Your task to perform on an android device: Go to accessibility settings Image 0: 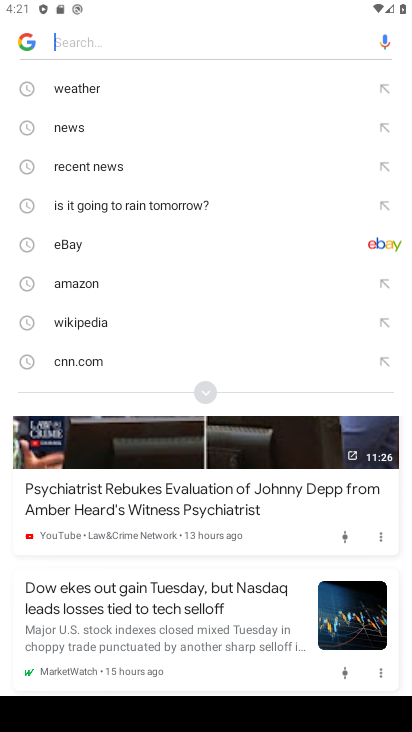
Step 0: press home button
Your task to perform on an android device: Go to accessibility settings Image 1: 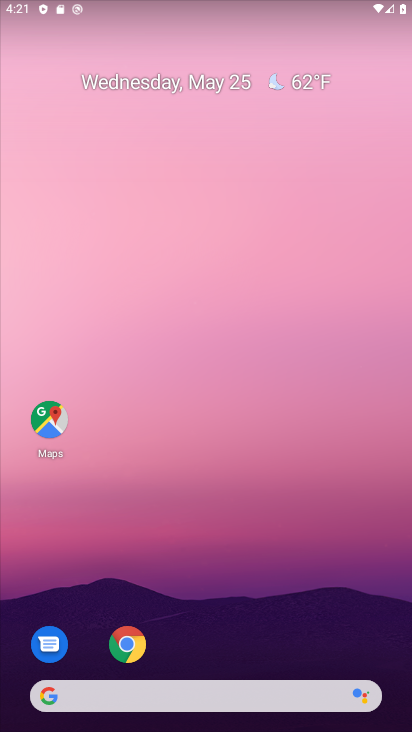
Step 1: drag from (176, 629) to (194, 516)
Your task to perform on an android device: Go to accessibility settings Image 2: 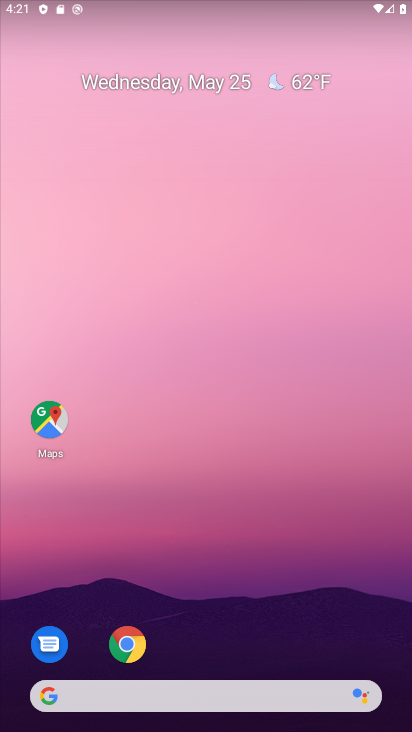
Step 2: drag from (219, 646) to (200, 302)
Your task to perform on an android device: Go to accessibility settings Image 3: 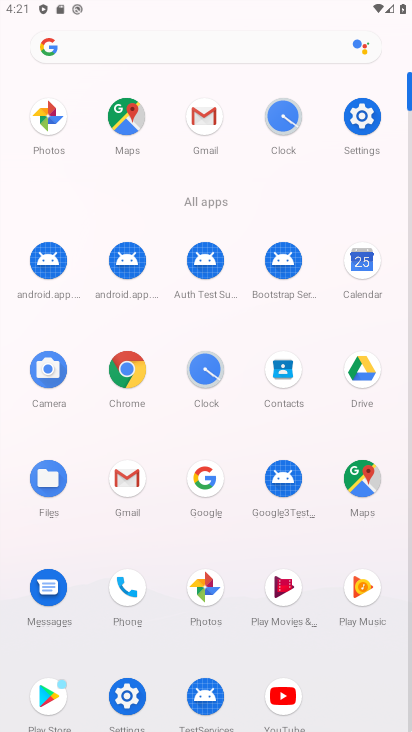
Step 3: click (367, 120)
Your task to perform on an android device: Go to accessibility settings Image 4: 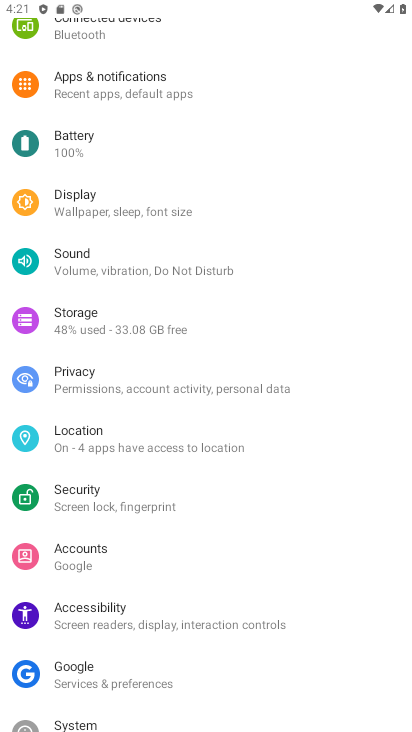
Step 4: click (122, 612)
Your task to perform on an android device: Go to accessibility settings Image 5: 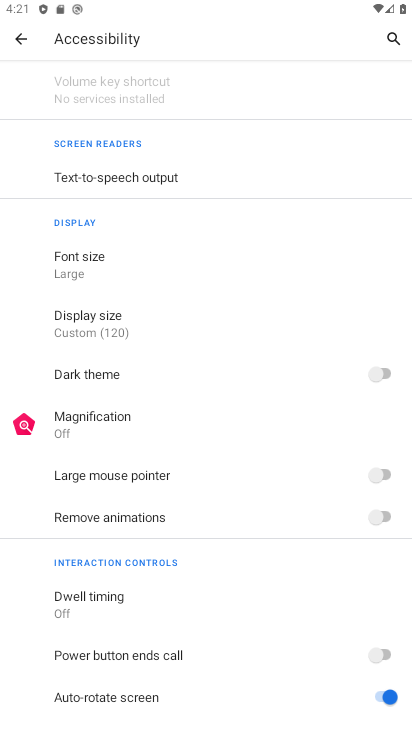
Step 5: task complete